Your task to perform on an android device: Go to network settings Image 0: 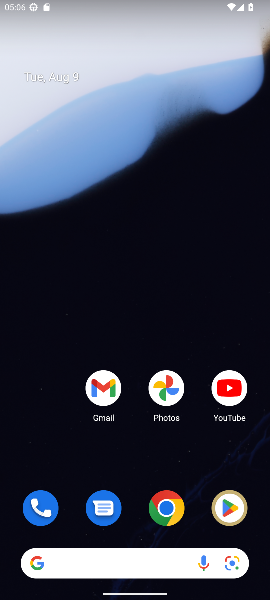
Step 0: drag from (128, 446) to (144, 14)
Your task to perform on an android device: Go to network settings Image 1: 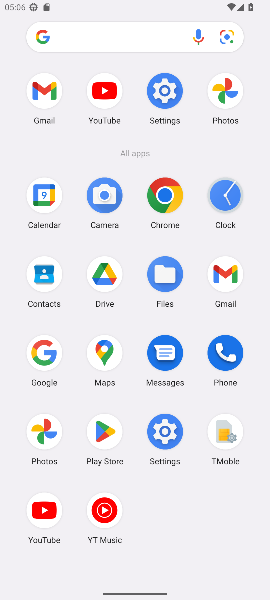
Step 1: click (164, 95)
Your task to perform on an android device: Go to network settings Image 2: 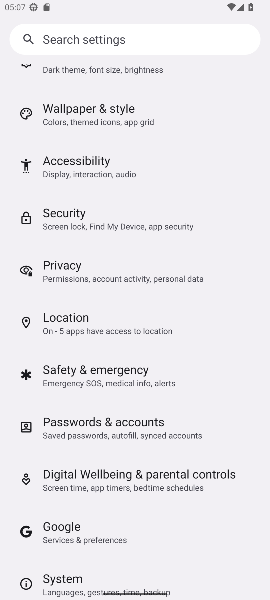
Step 2: drag from (101, 86) to (106, 222)
Your task to perform on an android device: Go to network settings Image 3: 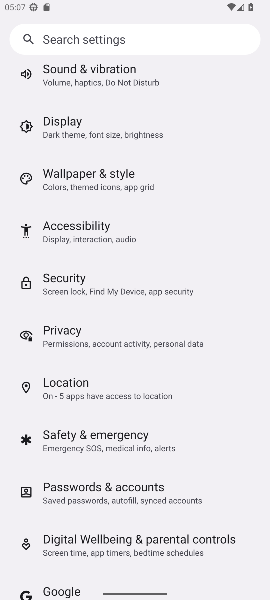
Step 3: drag from (127, 89) to (144, 256)
Your task to perform on an android device: Go to network settings Image 4: 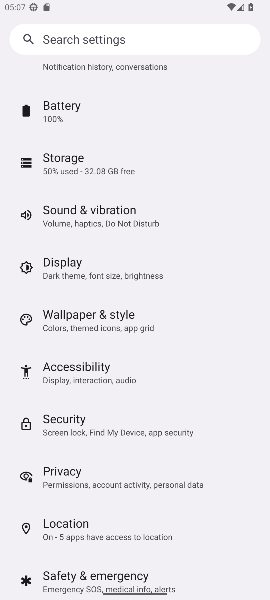
Step 4: drag from (155, 110) to (158, 295)
Your task to perform on an android device: Go to network settings Image 5: 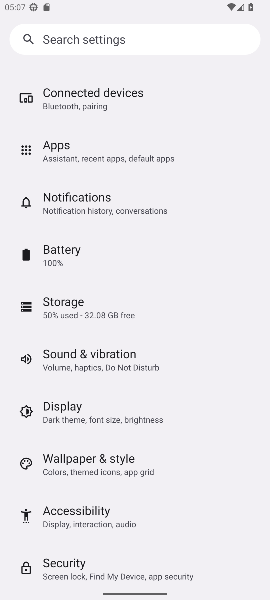
Step 5: drag from (99, 114) to (102, 282)
Your task to perform on an android device: Go to network settings Image 6: 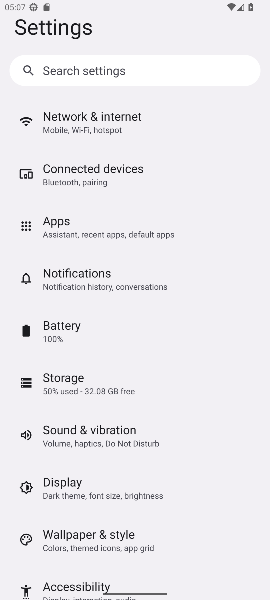
Step 6: click (144, 128)
Your task to perform on an android device: Go to network settings Image 7: 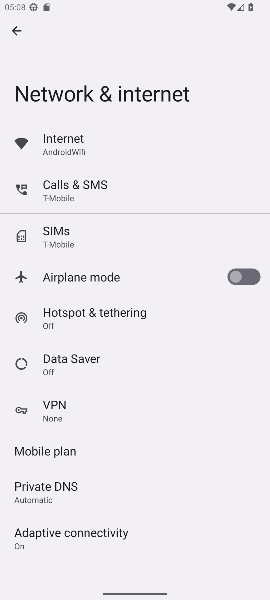
Step 7: task complete